Your task to perform on an android device: turn off airplane mode Image 0: 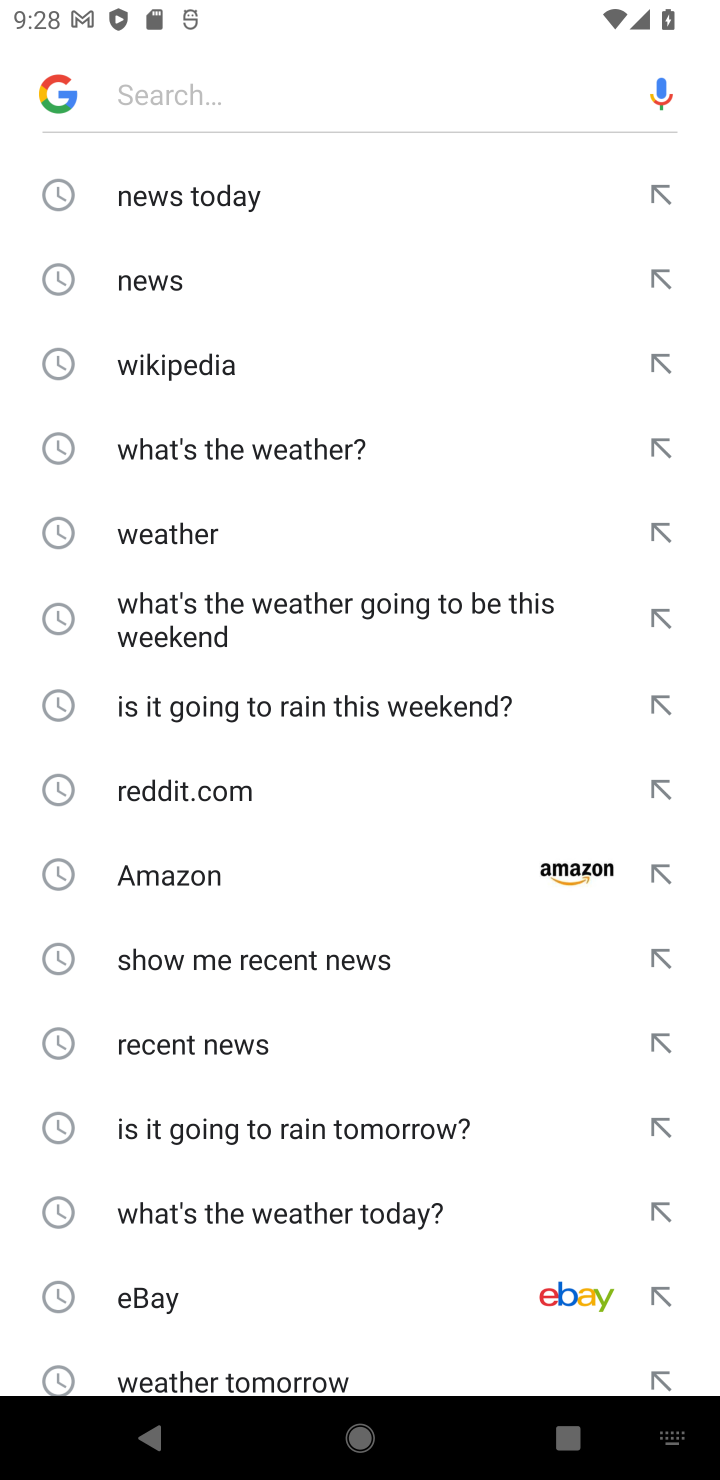
Step 0: press back button
Your task to perform on an android device: turn off airplane mode Image 1: 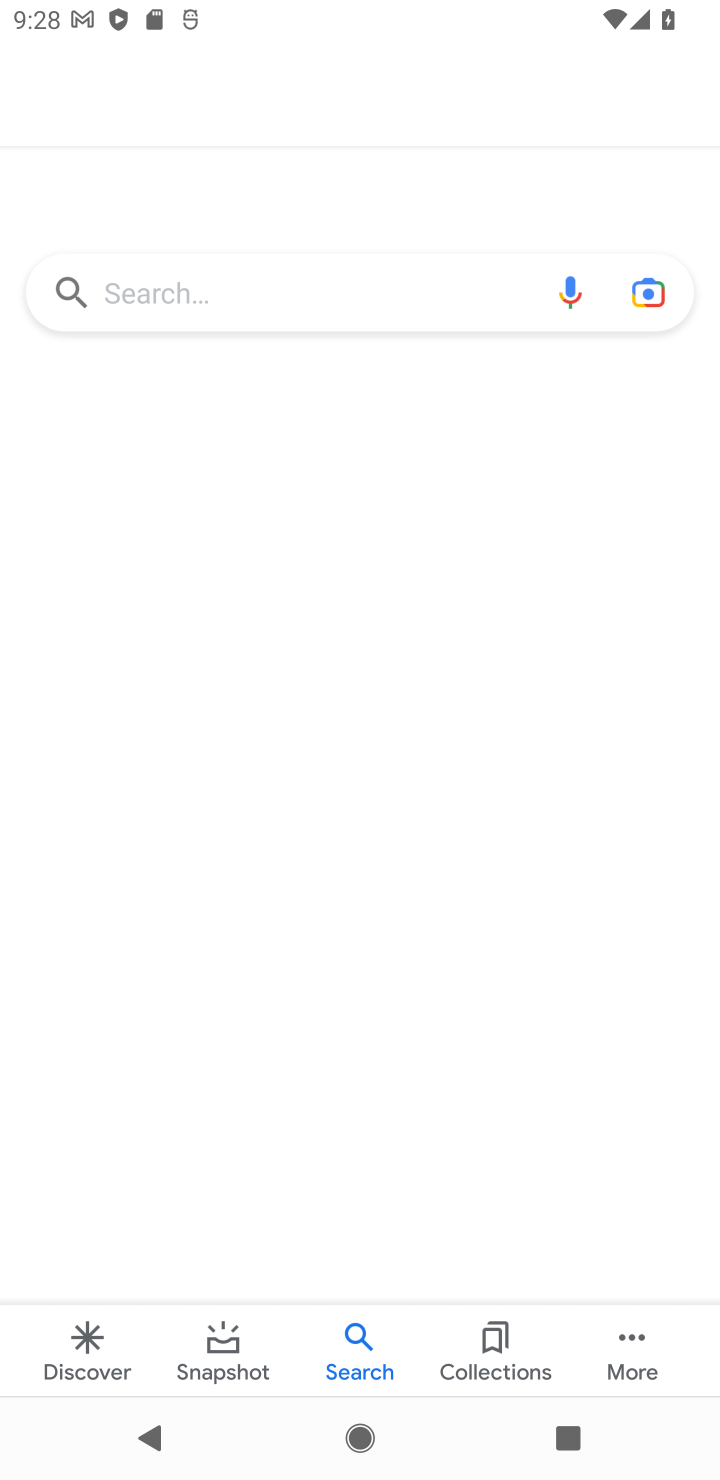
Step 1: task complete